Your task to perform on an android device: delete location history Image 0: 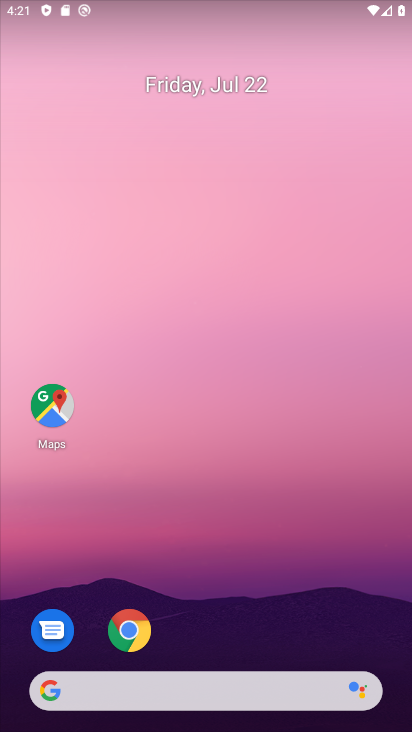
Step 0: drag from (163, 625) to (172, 267)
Your task to perform on an android device: delete location history Image 1: 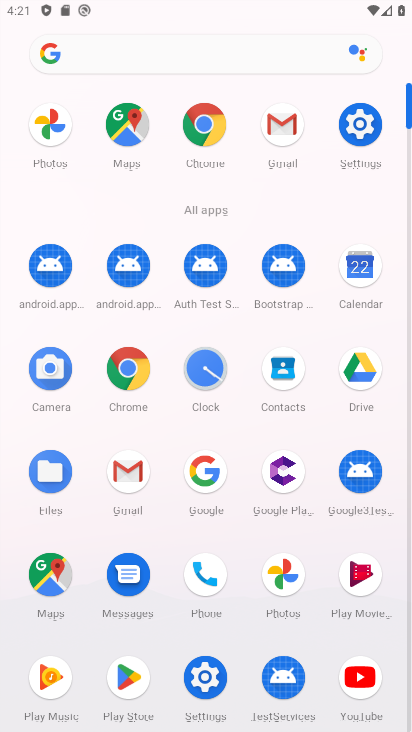
Step 1: click (354, 128)
Your task to perform on an android device: delete location history Image 2: 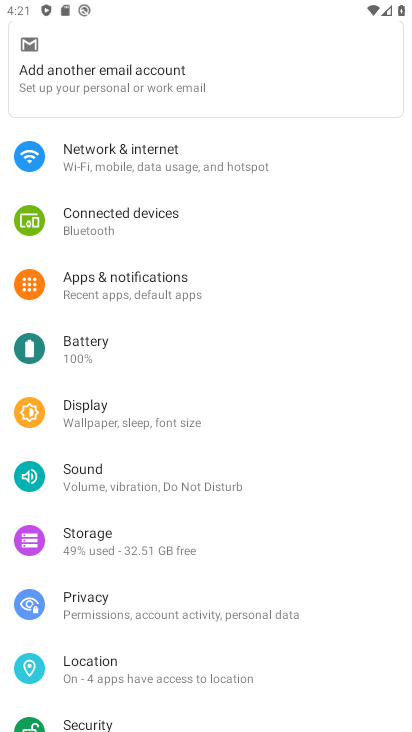
Step 2: click (98, 660)
Your task to perform on an android device: delete location history Image 3: 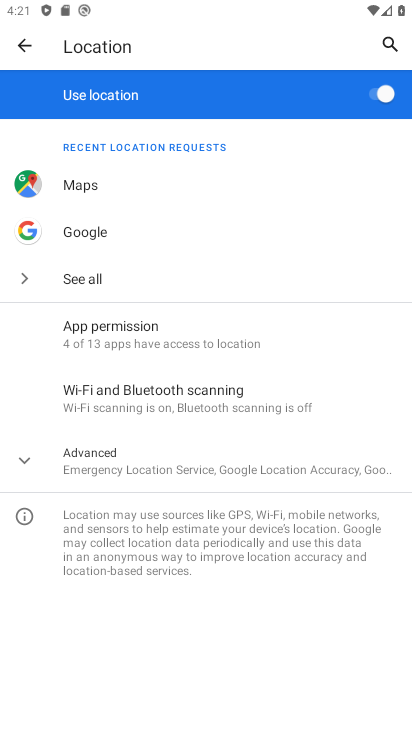
Step 3: click (96, 450)
Your task to perform on an android device: delete location history Image 4: 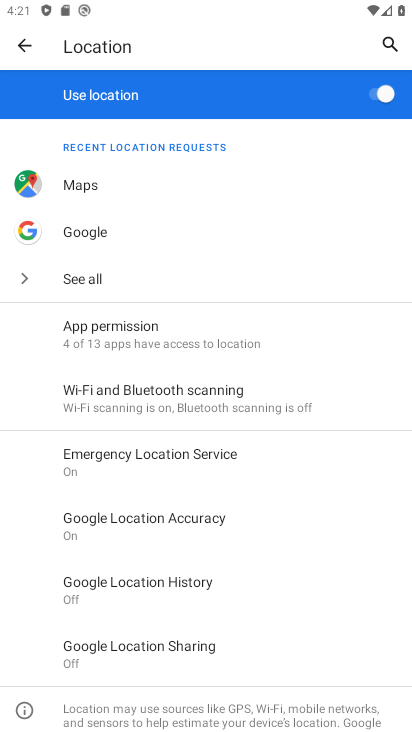
Step 4: click (143, 581)
Your task to perform on an android device: delete location history Image 5: 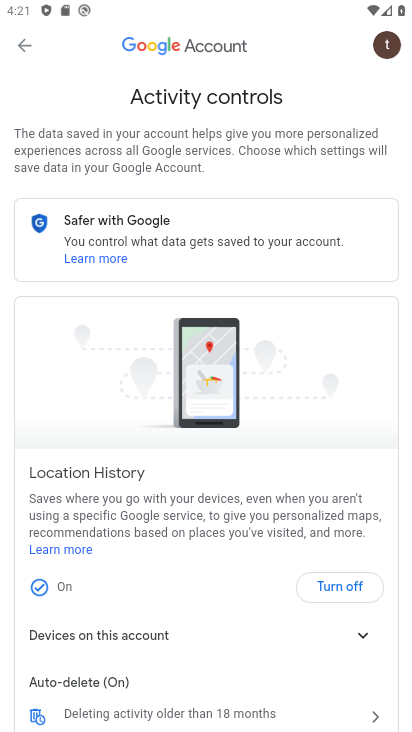
Step 5: drag from (123, 579) to (148, 494)
Your task to perform on an android device: delete location history Image 6: 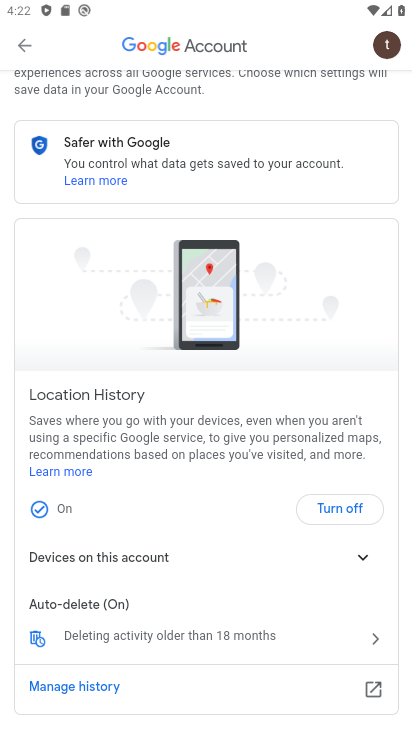
Step 6: click (85, 687)
Your task to perform on an android device: delete location history Image 7: 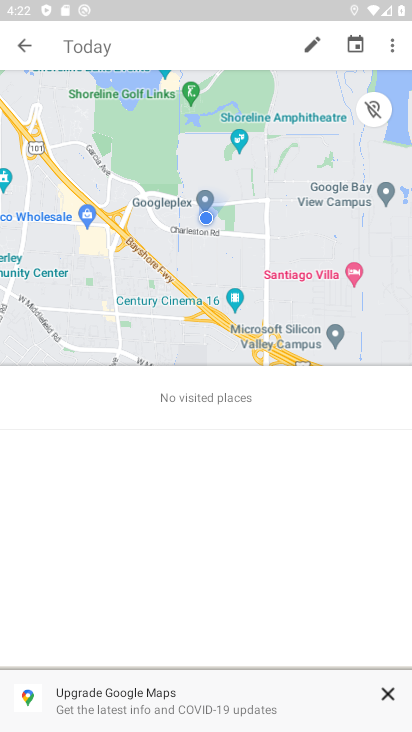
Step 7: drag from (175, 372) to (175, 320)
Your task to perform on an android device: delete location history Image 8: 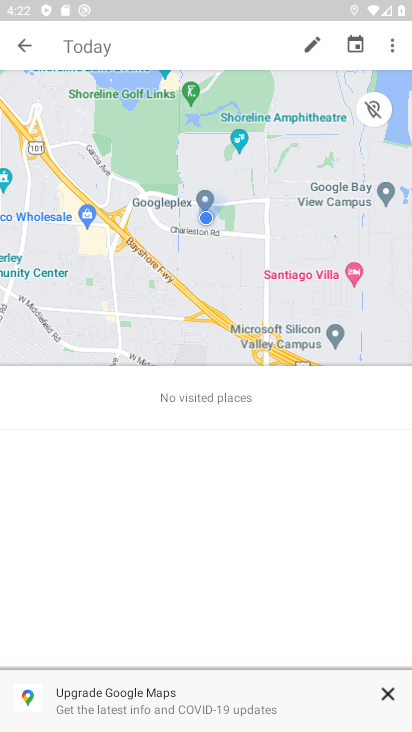
Step 8: drag from (200, 552) to (201, 333)
Your task to perform on an android device: delete location history Image 9: 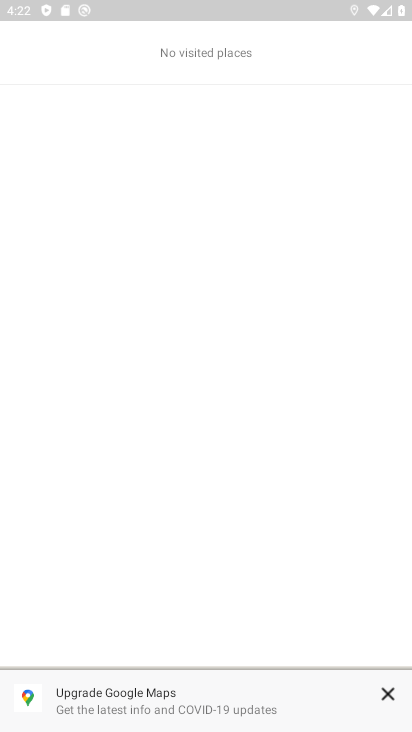
Step 9: click (390, 687)
Your task to perform on an android device: delete location history Image 10: 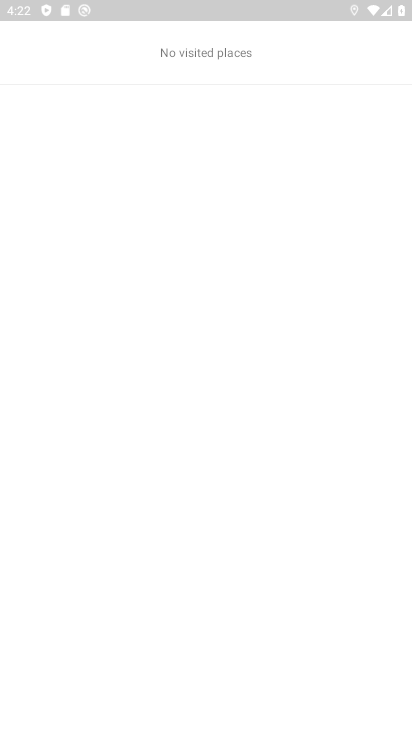
Step 10: drag from (270, 444) to (270, 700)
Your task to perform on an android device: delete location history Image 11: 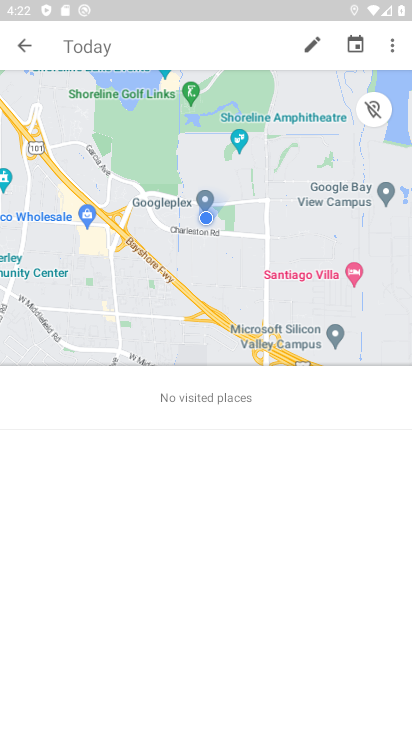
Step 11: drag from (259, 278) to (259, 617)
Your task to perform on an android device: delete location history Image 12: 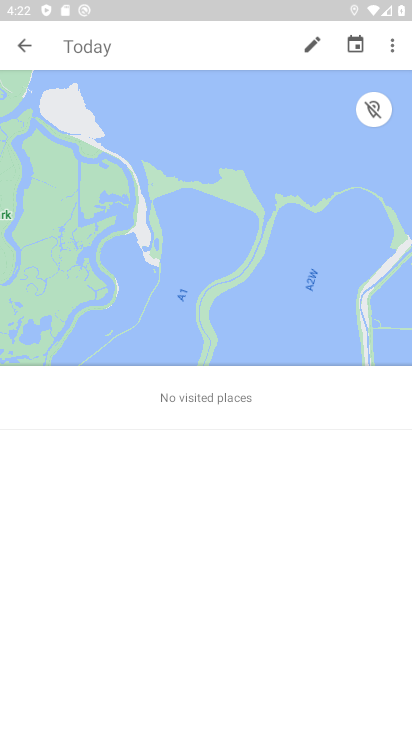
Step 12: click (393, 46)
Your task to perform on an android device: delete location history Image 13: 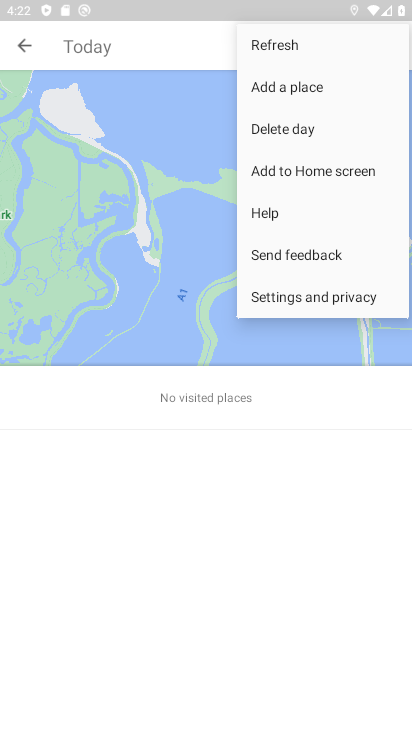
Step 13: click (307, 292)
Your task to perform on an android device: delete location history Image 14: 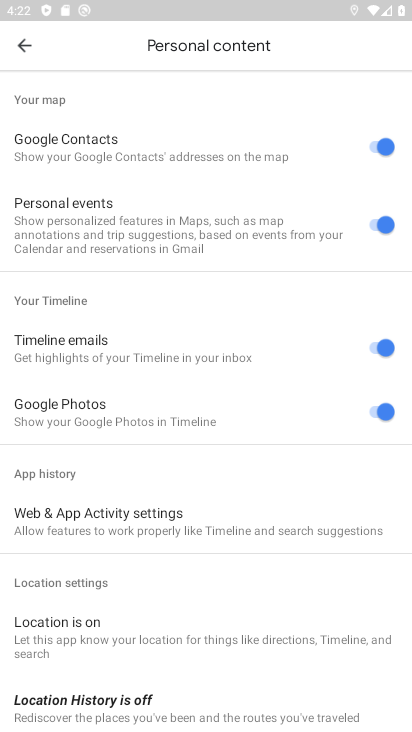
Step 14: drag from (129, 615) to (132, 272)
Your task to perform on an android device: delete location history Image 15: 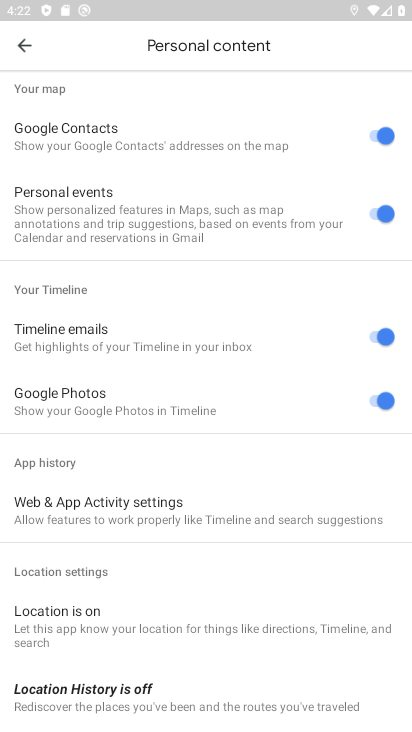
Step 15: drag from (124, 646) to (121, 454)
Your task to perform on an android device: delete location history Image 16: 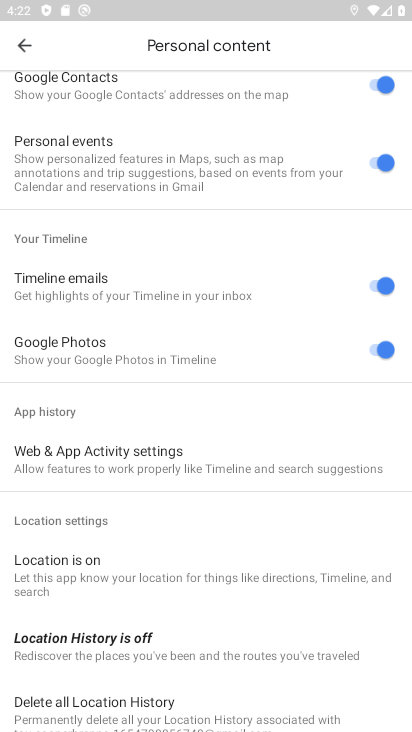
Step 16: drag from (117, 598) to (121, 455)
Your task to perform on an android device: delete location history Image 17: 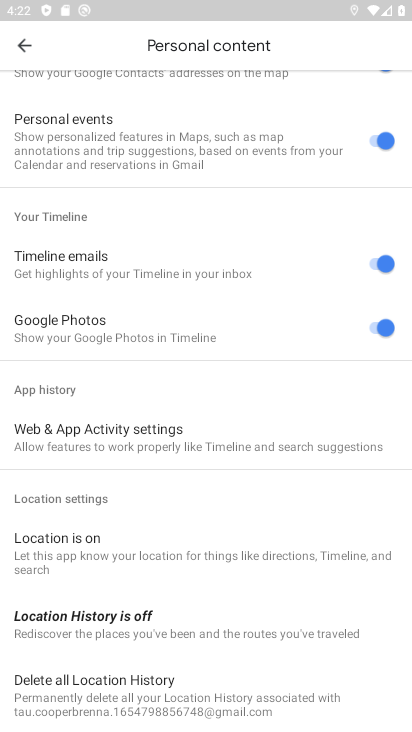
Step 17: drag from (210, 660) to (178, 447)
Your task to perform on an android device: delete location history Image 18: 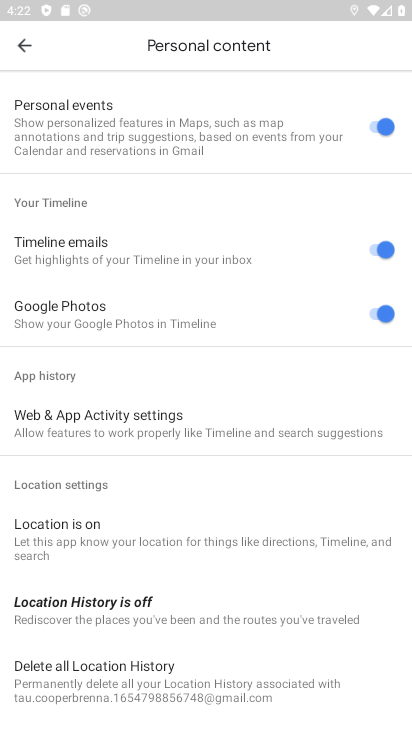
Step 18: drag from (146, 619) to (89, 314)
Your task to perform on an android device: delete location history Image 19: 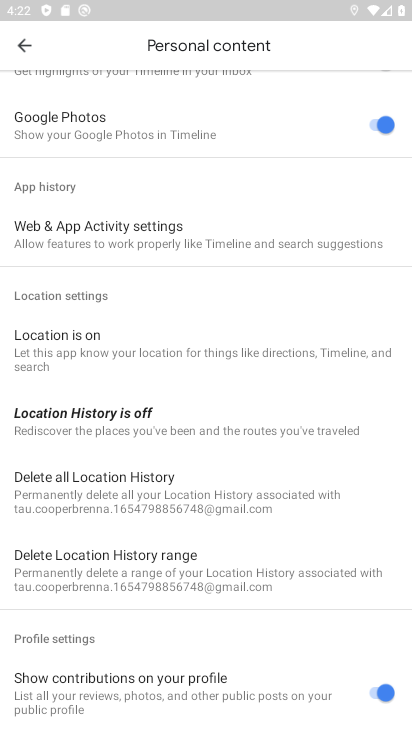
Step 19: click (170, 495)
Your task to perform on an android device: delete location history Image 20: 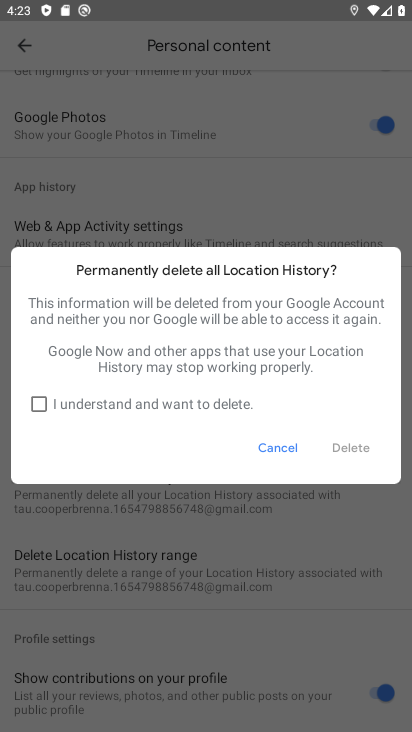
Step 20: click (31, 400)
Your task to perform on an android device: delete location history Image 21: 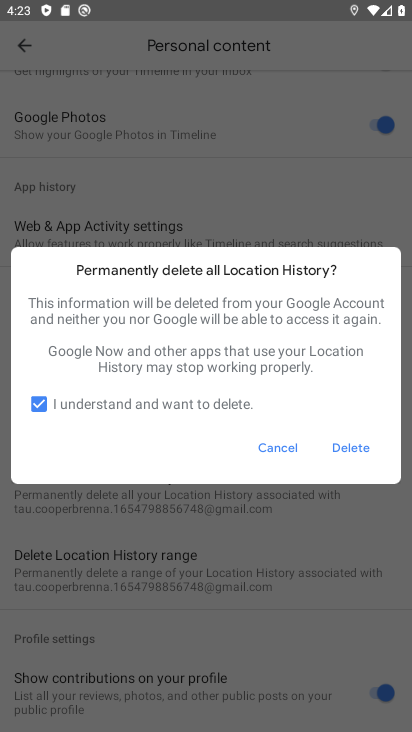
Step 21: click (346, 446)
Your task to perform on an android device: delete location history Image 22: 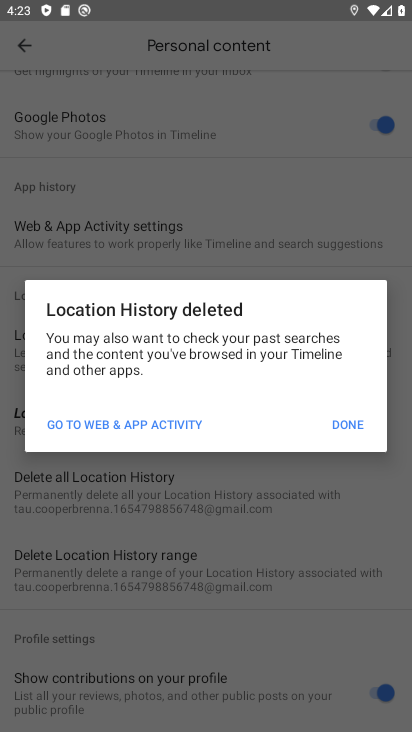
Step 22: click (346, 426)
Your task to perform on an android device: delete location history Image 23: 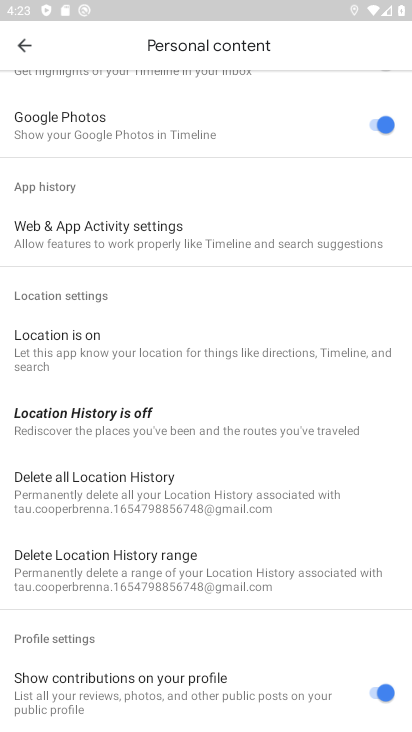
Step 23: task complete